Your task to perform on an android device: Open sound settings Image 0: 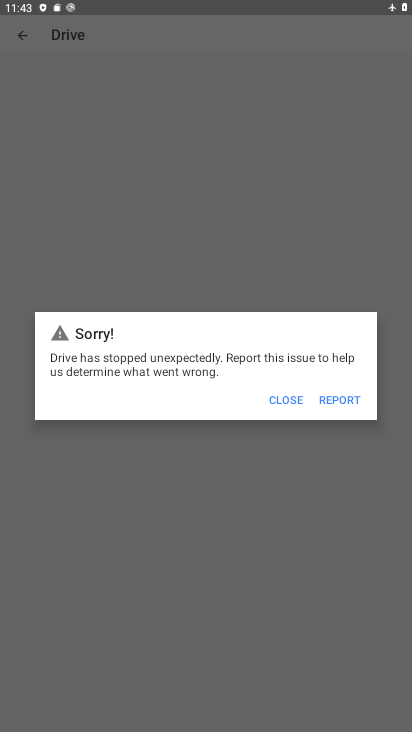
Step 0: press home button
Your task to perform on an android device: Open sound settings Image 1: 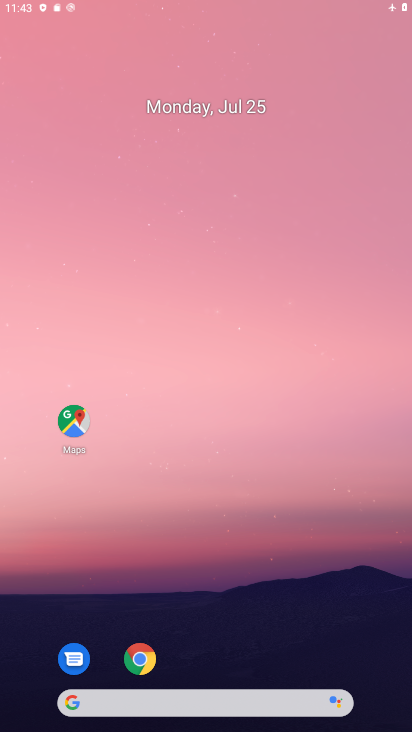
Step 1: drag from (275, 610) to (228, 4)
Your task to perform on an android device: Open sound settings Image 2: 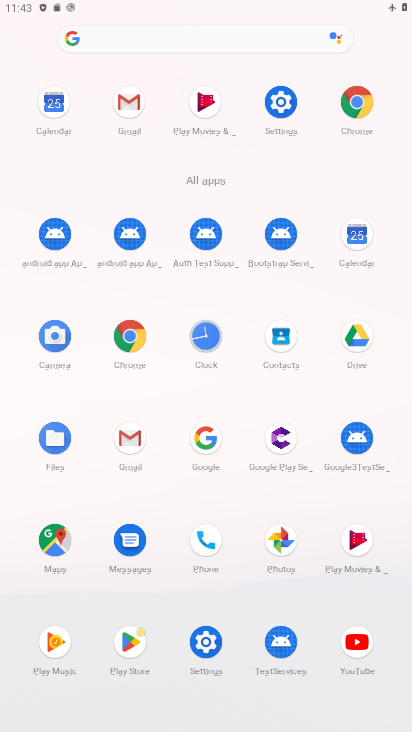
Step 2: click (196, 658)
Your task to perform on an android device: Open sound settings Image 3: 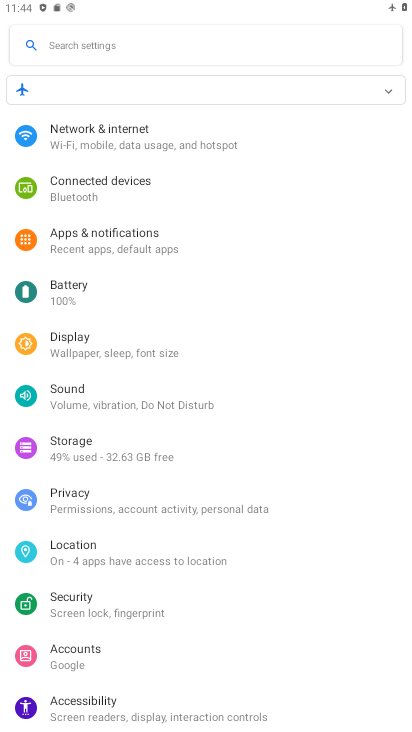
Step 3: click (105, 390)
Your task to perform on an android device: Open sound settings Image 4: 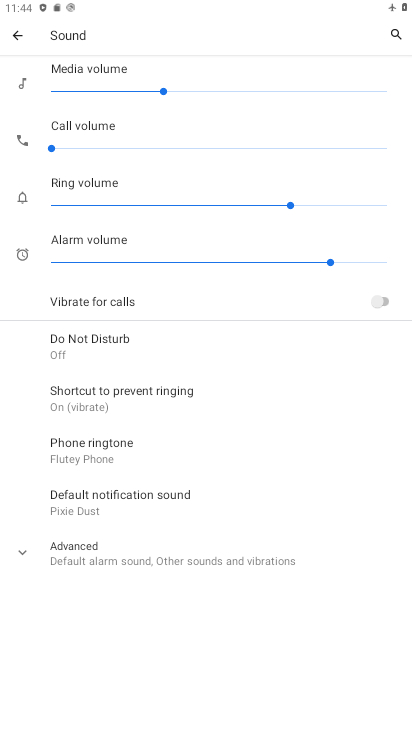
Step 4: task complete